Your task to perform on an android device: Is it going to rain today? Image 0: 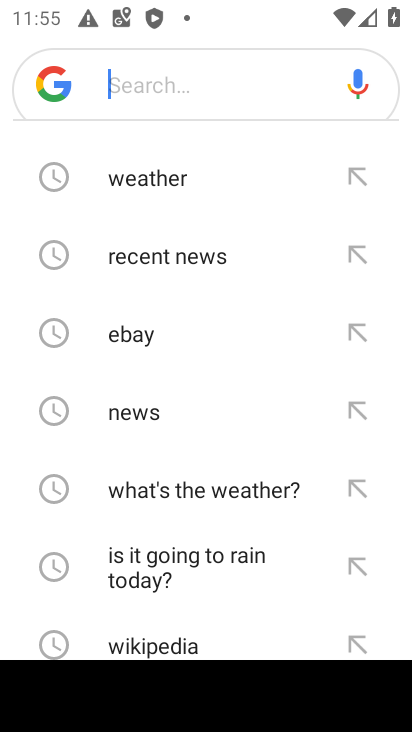
Step 0: click (163, 176)
Your task to perform on an android device: Is it going to rain today? Image 1: 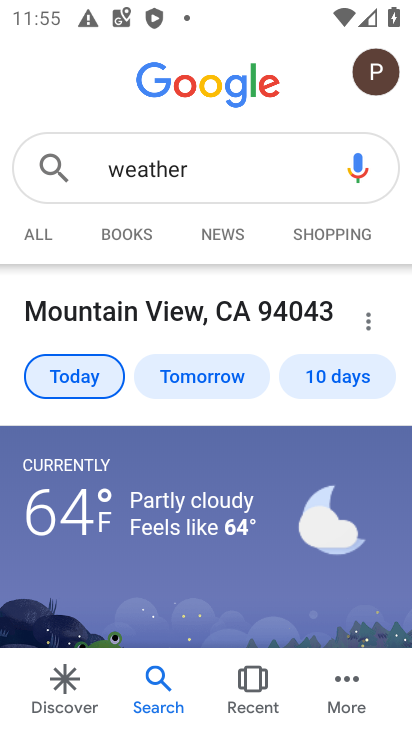
Step 1: click (73, 373)
Your task to perform on an android device: Is it going to rain today? Image 2: 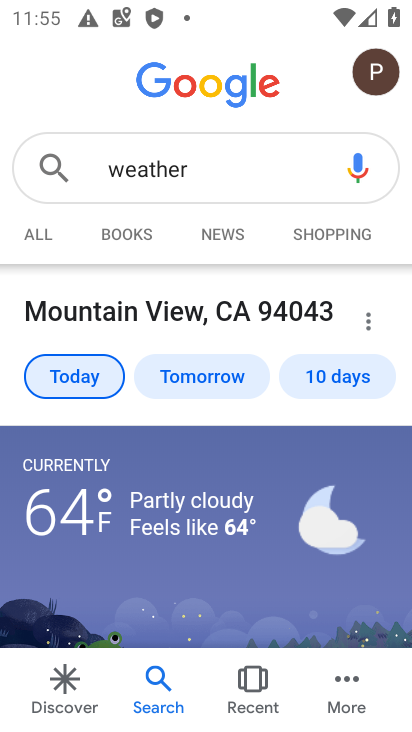
Step 2: task complete